Your task to perform on an android device: Open sound settings Image 0: 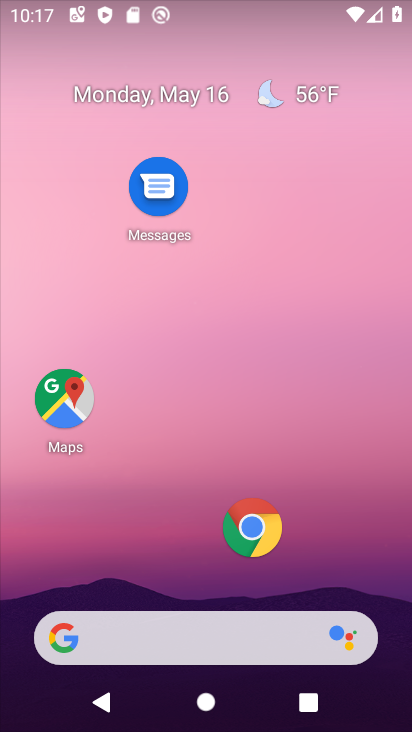
Step 0: drag from (171, 545) to (162, 63)
Your task to perform on an android device: Open sound settings Image 1: 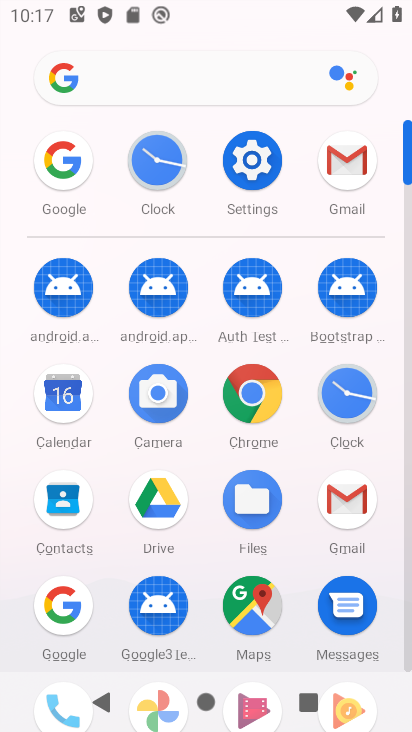
Step 1: click (254, 156)
Your task to perform on an android device: Open sound settings Image 2: 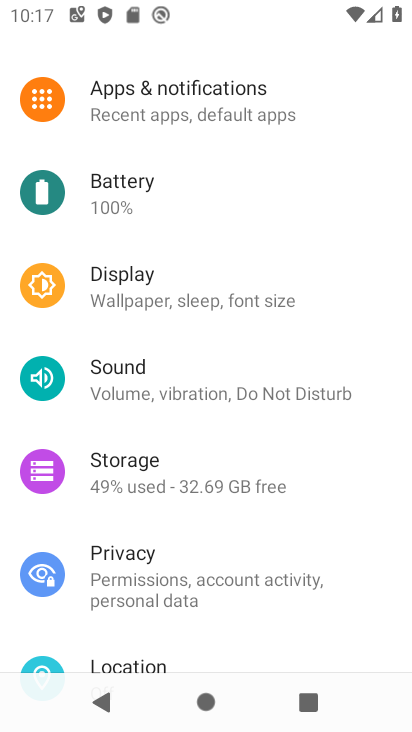
Step 2: drag from (191, 214) to (208, 327)
Your task to perform on an android device: Open sound settings Image 3: 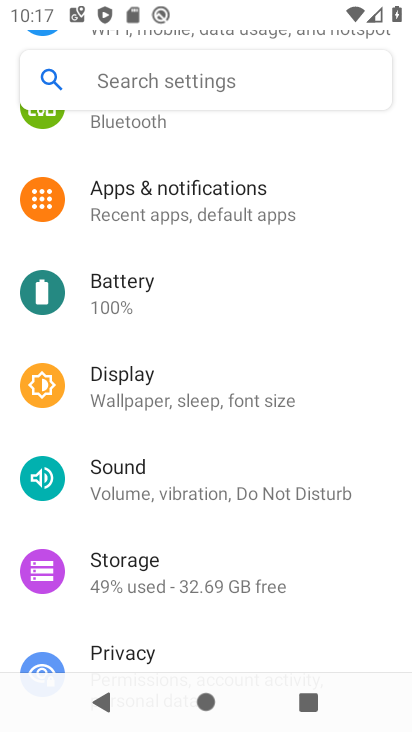
Step 3: click (140, 462)
Your task to perform on an android device: Open sound settings Image 4: 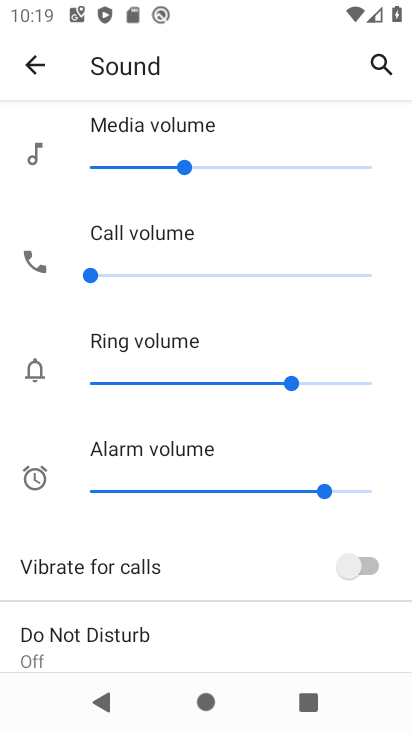
Step 4: task complete